Your task to perform on an android device: Open Google Image 0: 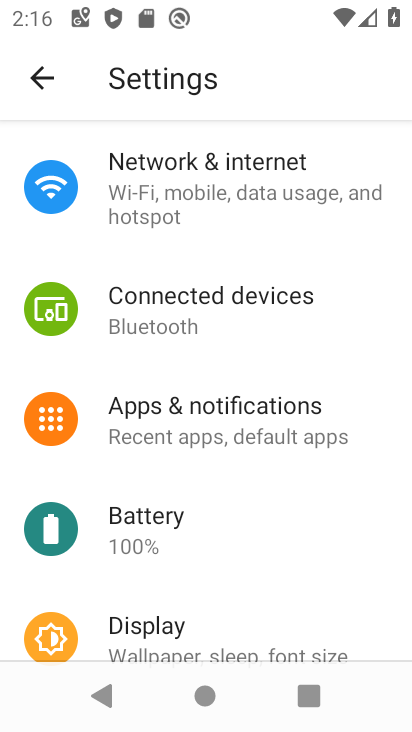
Step 0: press home button
Your task to perform on an android device: Open Google Image 1: 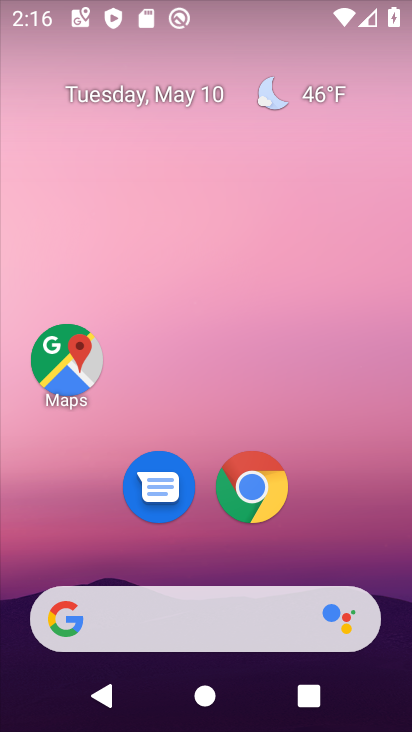
Step 1: drag from (341, 511) to (325, 43)
Your task to perform on an android device: Open Google Image 2: 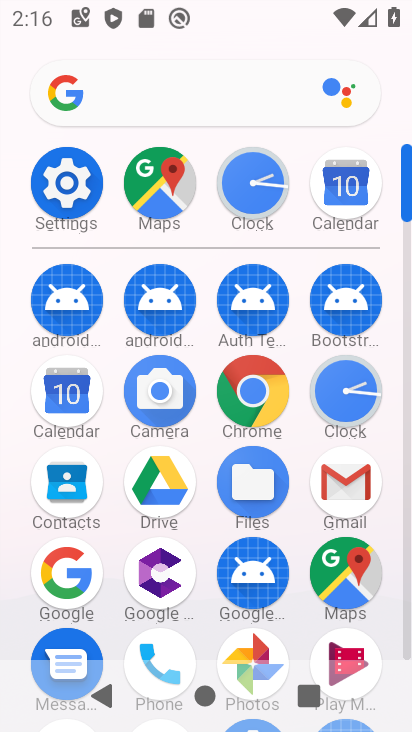
Step 2: click (58, 574)
Your task to perform on an android device: Open Google Image 3: 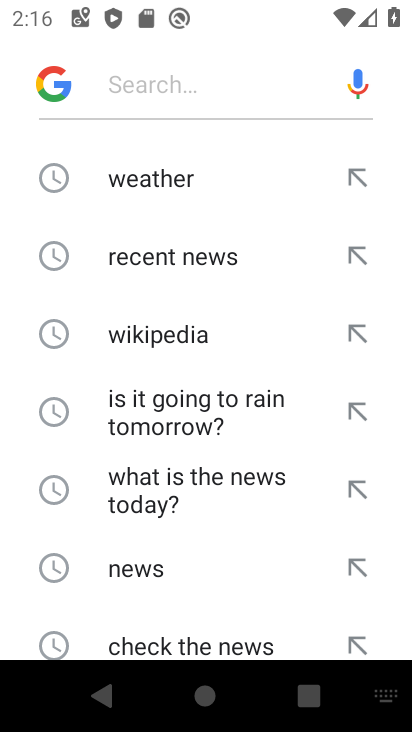
Step 3: task complete